Your task to perform on an android device: turn on showing notifications on the lock screen Image 0: 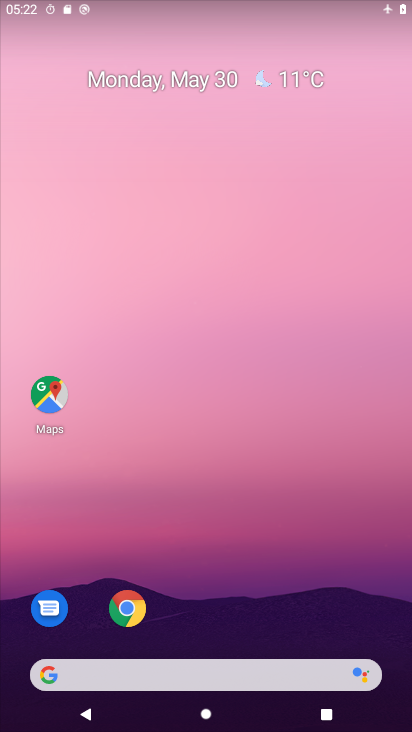
Step 0: drag from (292, 563) to (191, 65)
Your task to perform on an android device: turn on showing notifications on the lock screen Image 1: 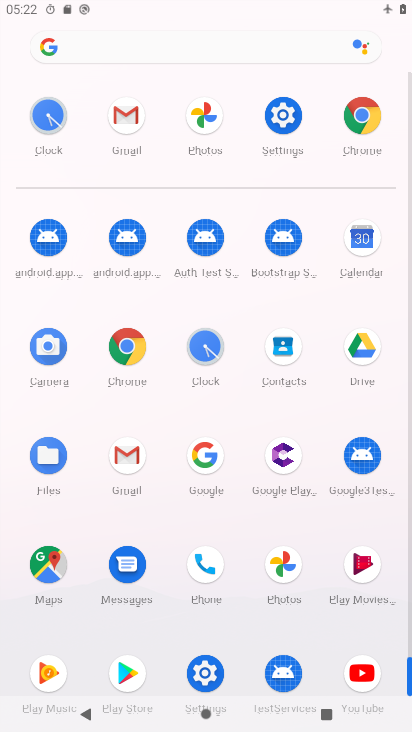
Step 1: click (284, 126)
Your task to perform on an android device: turn on showing notifications on the lock screen Image 2: 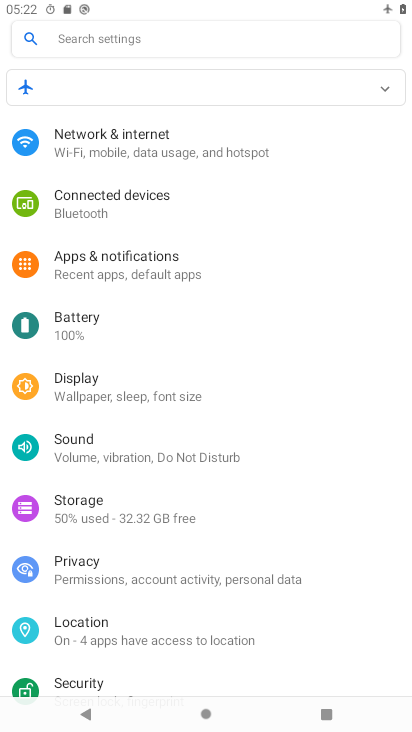
Step 2: click (155, 257)
Your task to perform on an android device: turn on showing notifications on the lock screen Image 3: 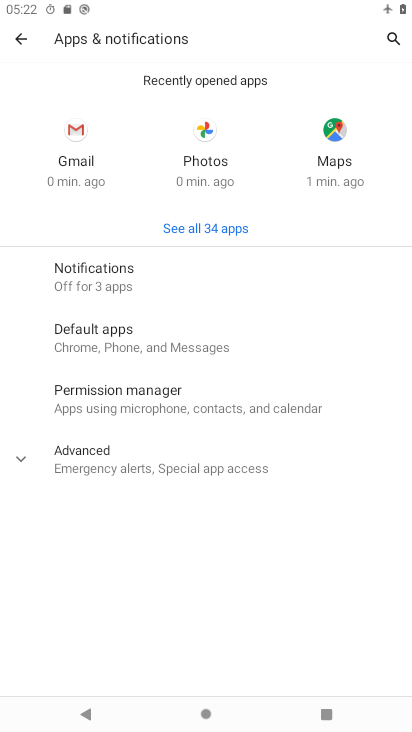
Step 3: click (165, 259)
Your task to perform on an android device: turn on showing notifications on the lock screen Image 4: 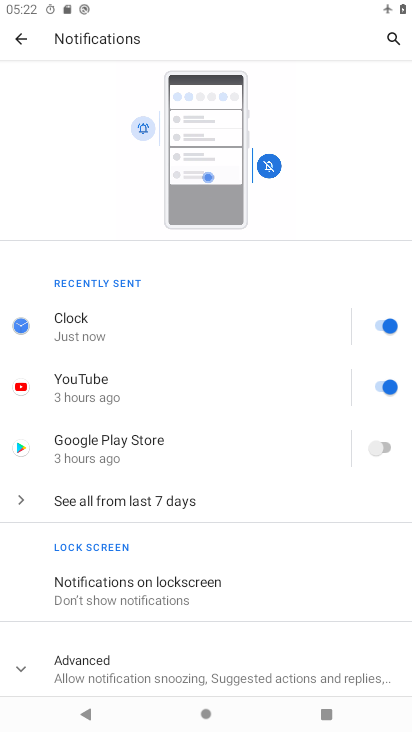
Step 4: click (238, 589)
Your task to perform on an android device: turn on showing notifications on the lock screen Image 5: 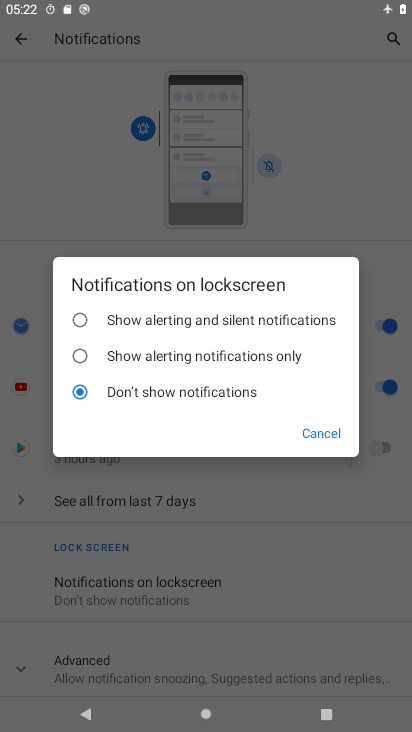
Step 5: click (234, 322)
Your task to perform on an android device: turn on showing notifications on the lock screen Image 6: 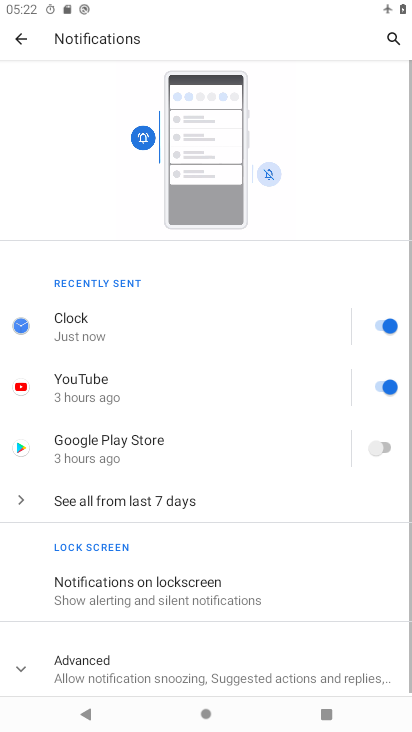
Step 6: task complete